Your task to perform on an android device: change notifications settings Image 0: 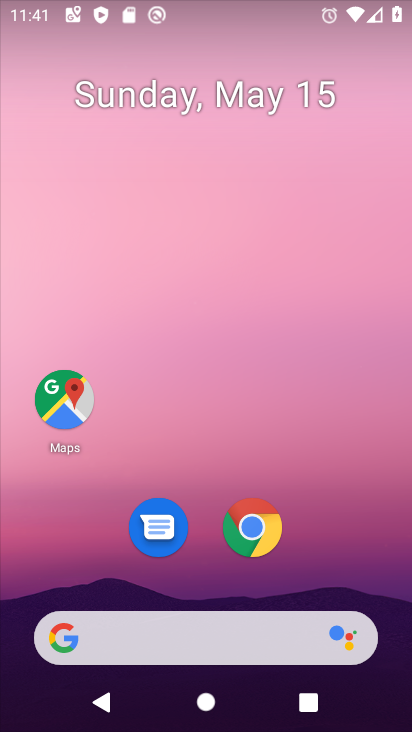
Step 0: drag from (350, 564) to (325, 287)
Your task to perform on an android device: change notifications settings Image 1: 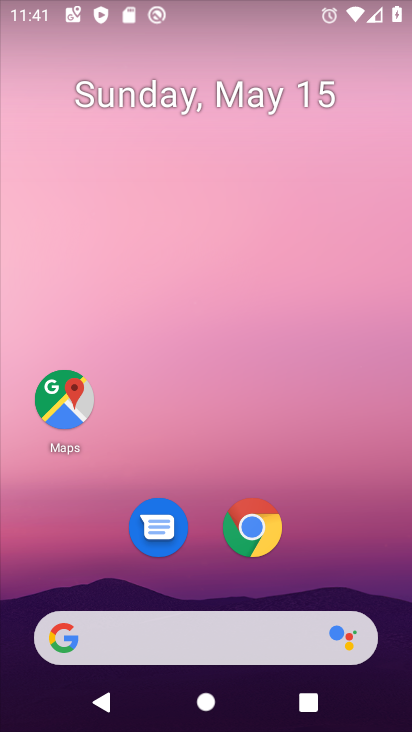
Step 1: drag from (318, 568) to (332, 213)
Your task to perform on an android device: change notifications settings Image 2: 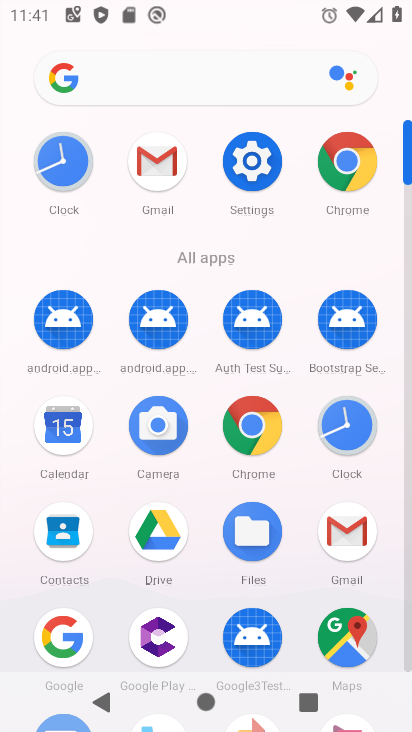
Step 2: click (256, 179)
Your task to perform on an android device: change notifications settings Image 3: 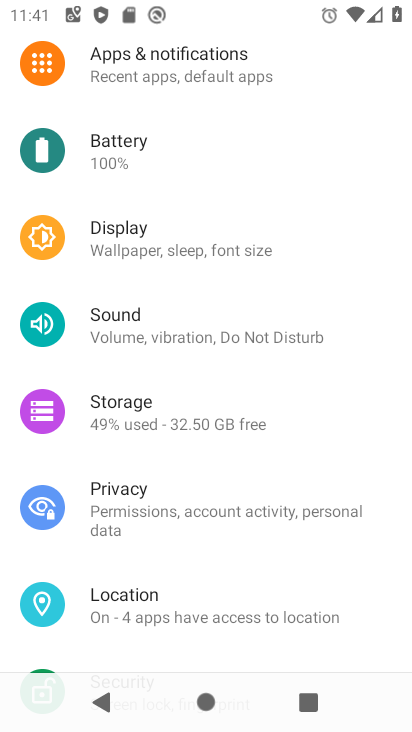
Step 3: drag from (201, 546) to (236, 298)
Your task to perform on an android device: change notifications settings Image 4: 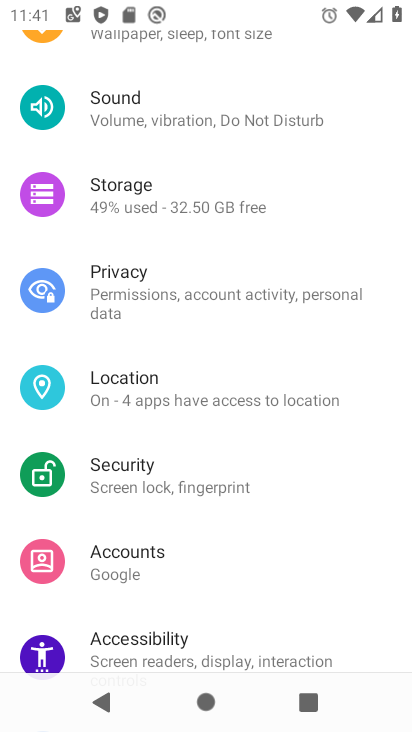
Step 4: drag from (247, 202) to (276, 584)
Your task to perform on an android device: change notifications settings Image 5: 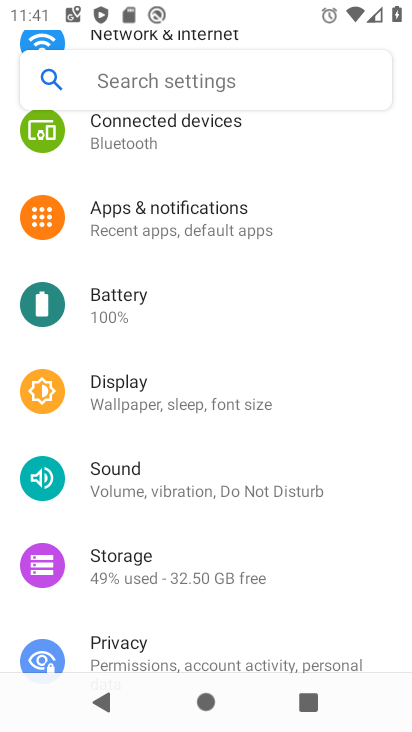
Step 5: click (231, 233)
Your task to perform on an android device: change notifications settings Image 6: 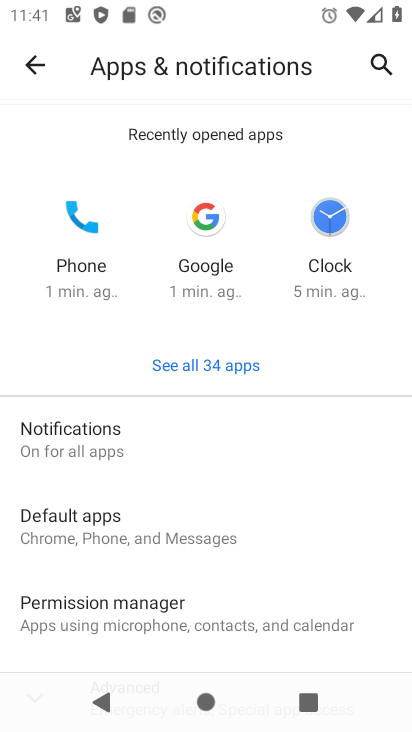
Step 6: click (242, 455)
Your task to perform on an android device: change notifications settings Image 7: 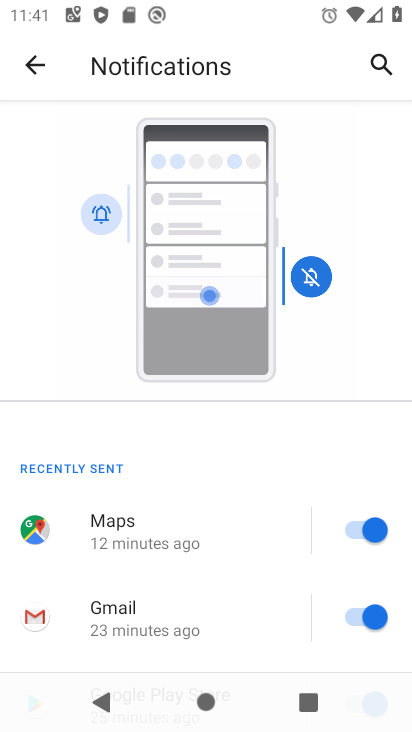
Step 7: task complete